Your task to perform on an android device: turn off location history Image 0: 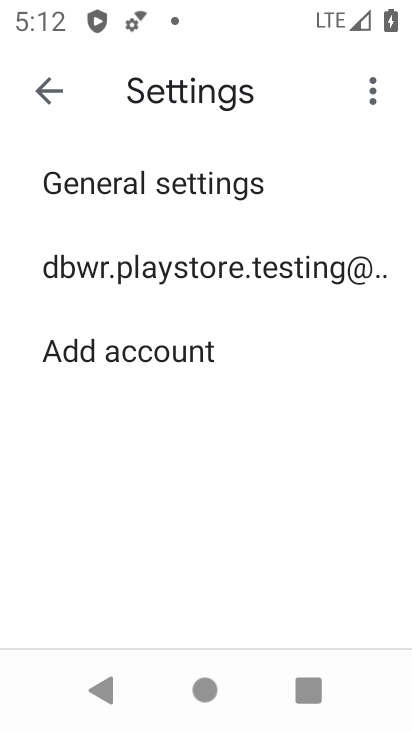
Step 0: press back button
Your task to perform on an android device: turn off location history Image 1: 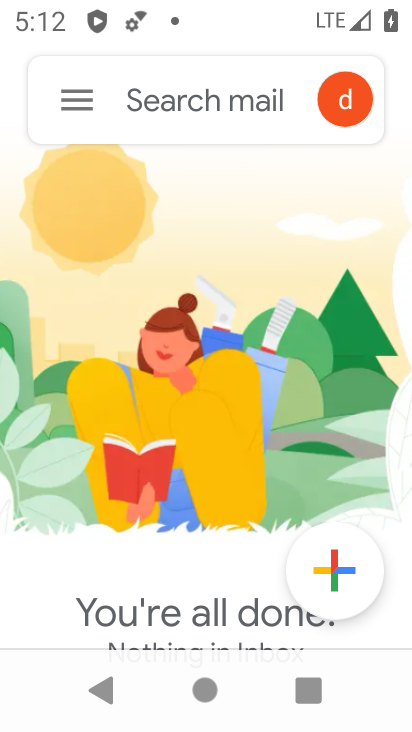
Step 1: press back button
Your task to perform on an android device: turn off location history Image 2: 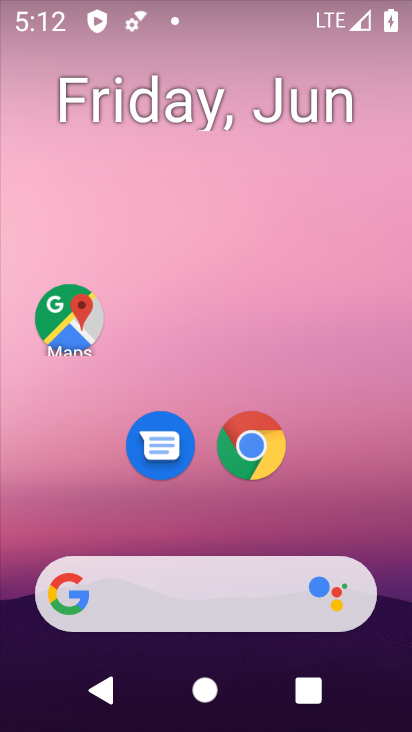
Step 2: drag from (255, 106) to (226, 20)
Your task to perform on an android device: turn off location history Image 3: 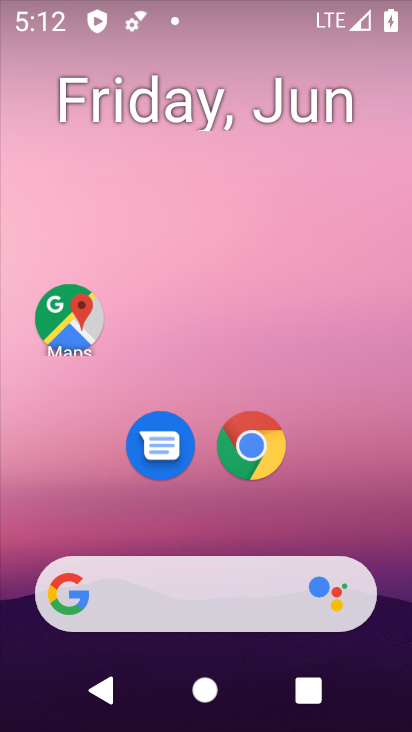
Step 3: drag from (401, 617) to (281, 52)
Your task to perform on an android device: turn off location history Image 4: 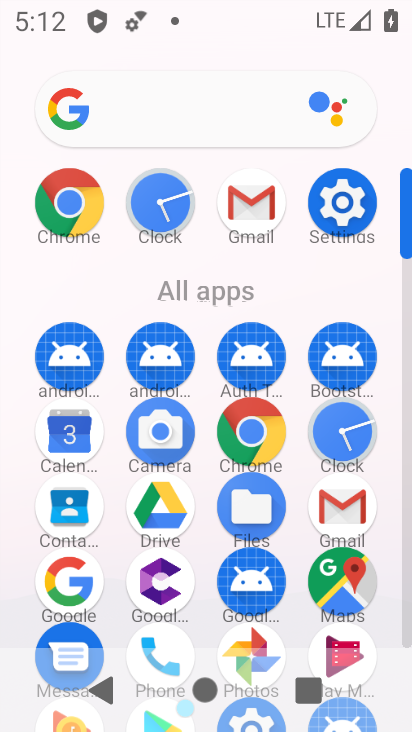
Step 4: drag from (10, 400) to (8, 223)
Your task to perform on an android device: turn off location history Image 5: 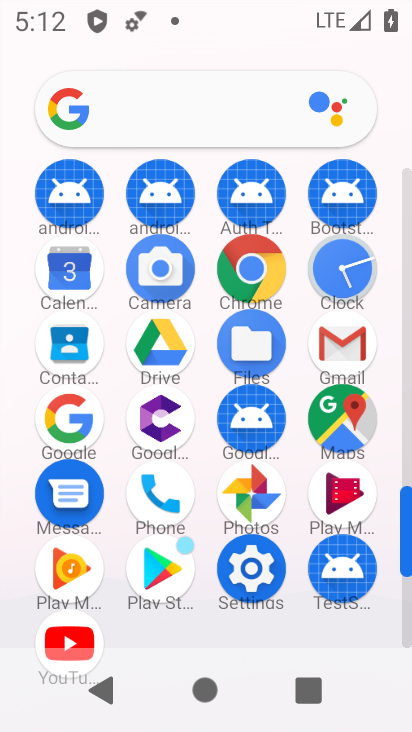
Step 5: click (251, 565)
Your task to perform on an android device: turn off location history Image 6: 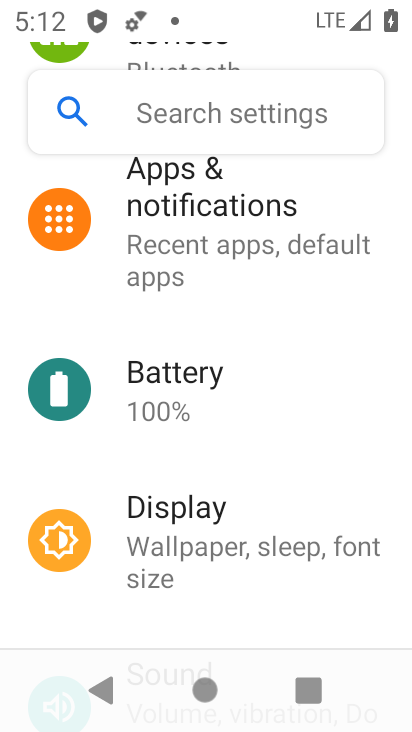
Step 6: drag from (258, 543) to (275, 164)
Your task to perform on an android device: turn off location history Image 7: 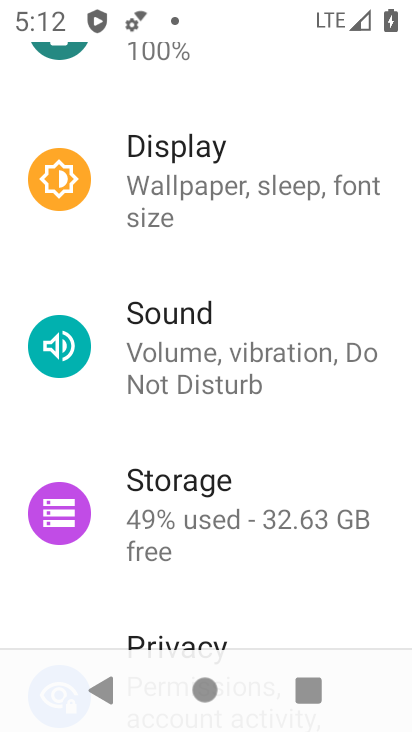
Step 7: drag from (269, 403) to (256, 118)
Your task to perform on an android device: turn off location history Image 8: 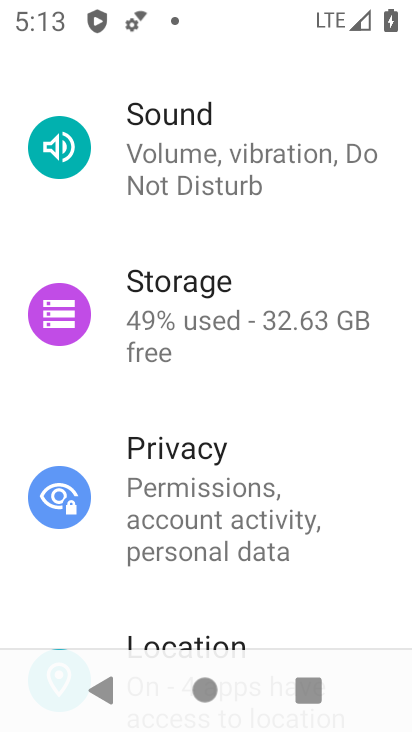
Step 8: drag from (248, 568) to (267, 156)
Your task to perform on an android device: turn off location history Image 9: 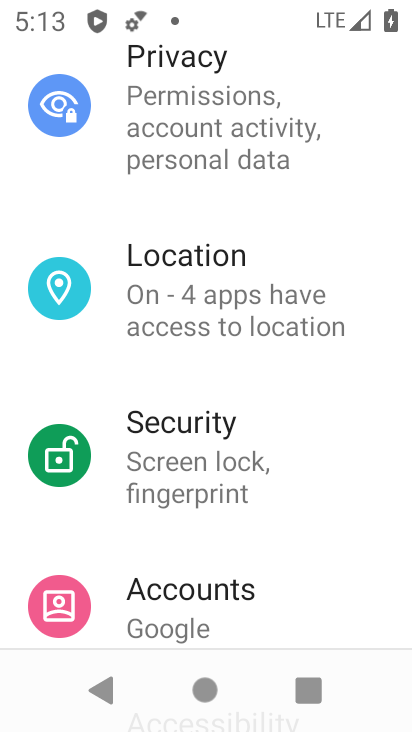
Step 9: drag from (262, 568) to (270, 495)
Your task to perform on an android device: turn off location history Image 10: 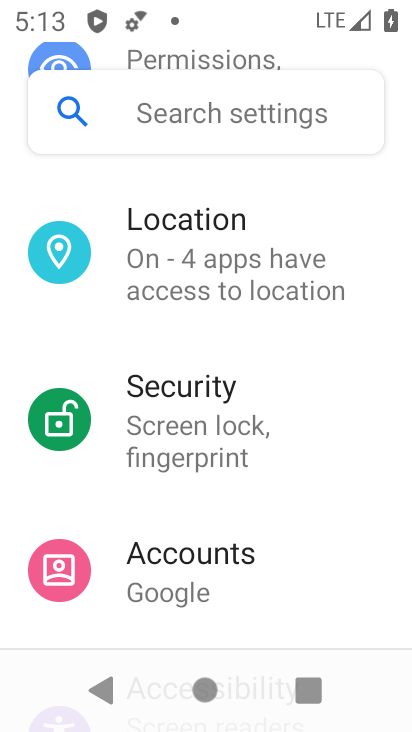
Step 10: click (243, 238)
Your task to perform on an android device: turn off location history Image 11: 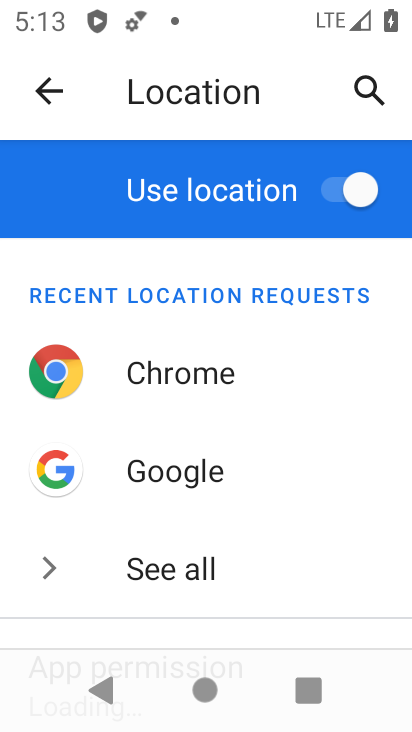
Step 11: drag from (273, 514) to (261, 161)
Your task to perform on an android device: turn off location history Image 12: 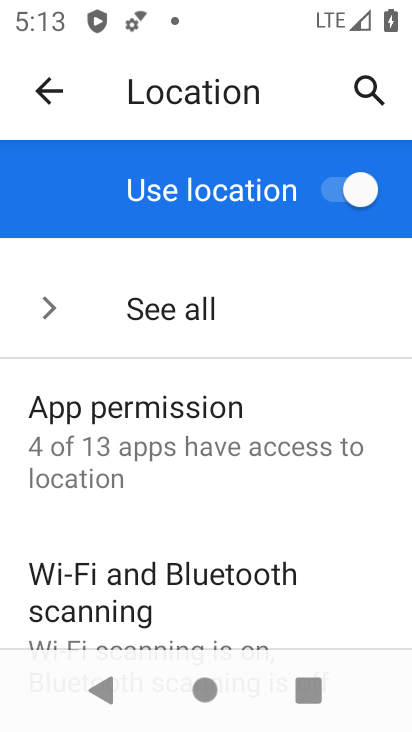
Step 12: drag from (252, 578) to (250, 182)
Your task to perform on an android device: turn off location history Image 13: 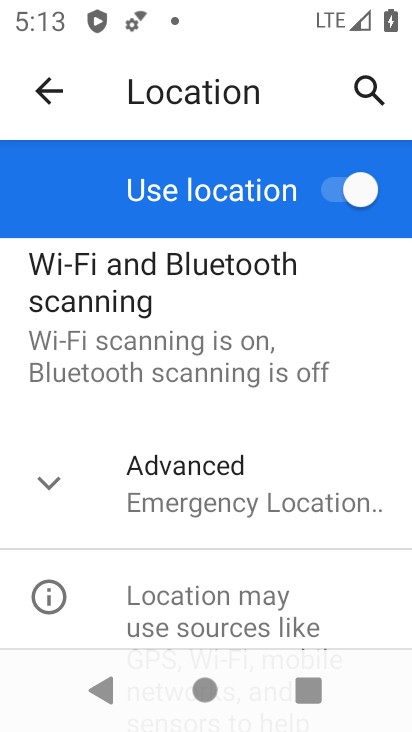
Step 13: drag from (250, 568) to (250, 253)
Your task to perform on an android device: turn off location history Image 14: 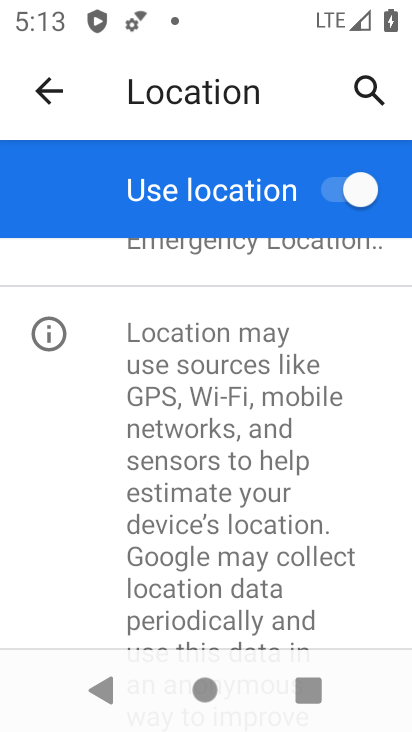
Step 14: click (31, 349)
Your task to perform on an android device: turn off location history Image 15: 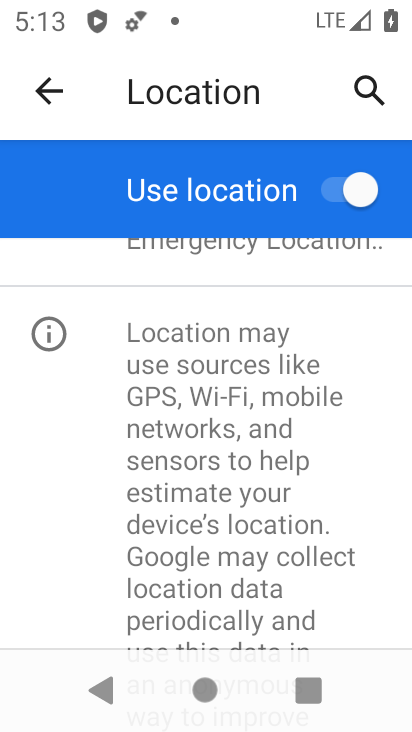
Step 15: drag from (300, 497) to (301, 604)
Your task to perform on an android device: turn off location history Image 16: 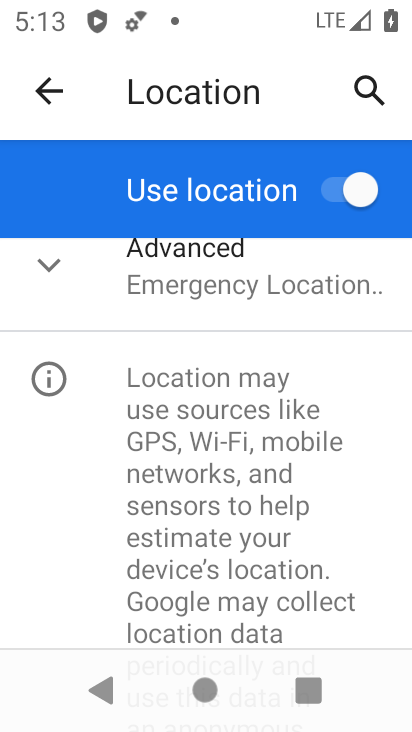
Step 16: drag from (257, 341) to (276, 626)
Your task to perform on an android device: turn off location history Image 17: 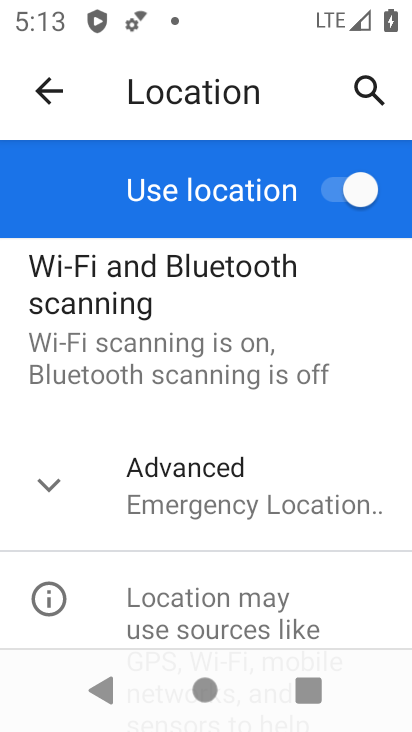
Step 17: click (83, 474)
Your task to perform on an android device: turn off location history Image 18: 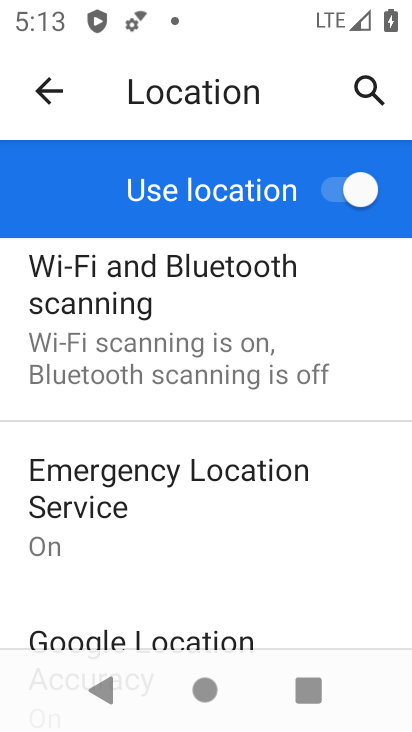
Step 18: drag from (223, 522) to (208, 263)
Your task to perform on an android device: turn off location history Image 19: 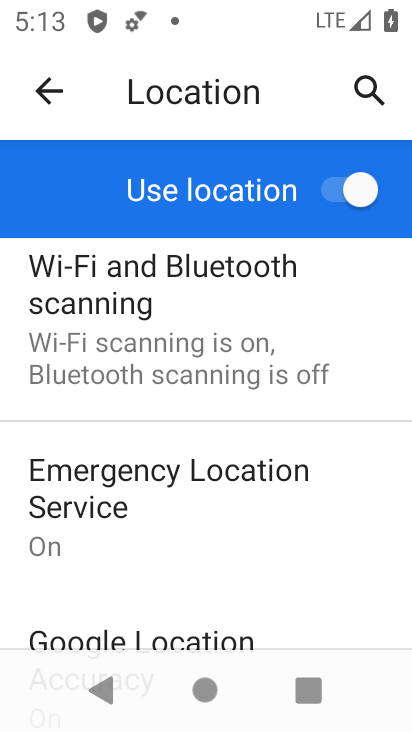
Step 19: drag from (293, 604) to (290, 276)
Your task to perform on an android device: turn off location history Image 20: 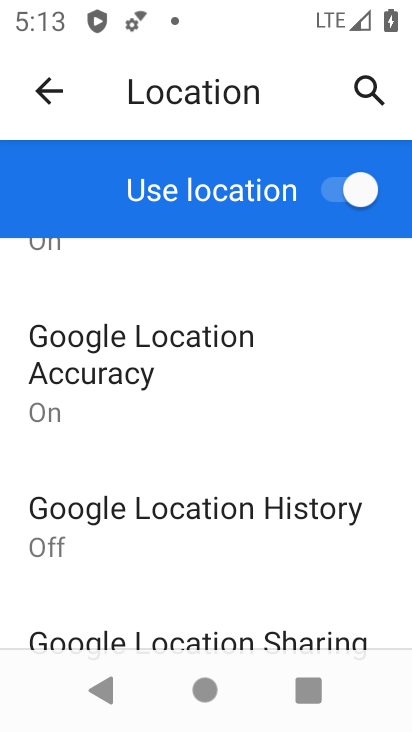
Step 20: drag from (270, 531) to (270, 340)
Your task to perform on an android device: turn off location history Image 21: 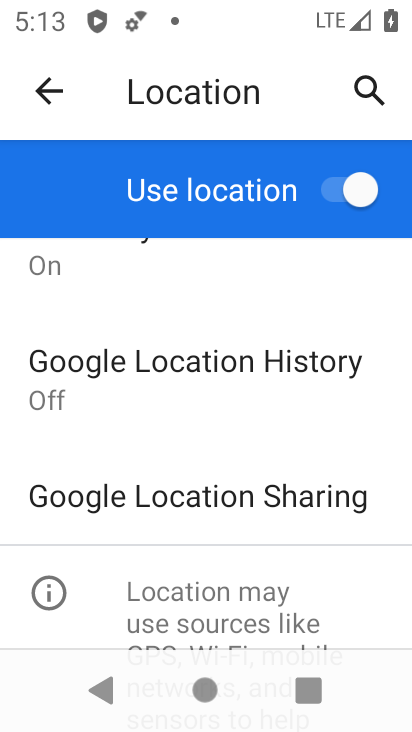
Step 21: click (243, 363)
Your task to perform on an android device: turn off location history Image 22: 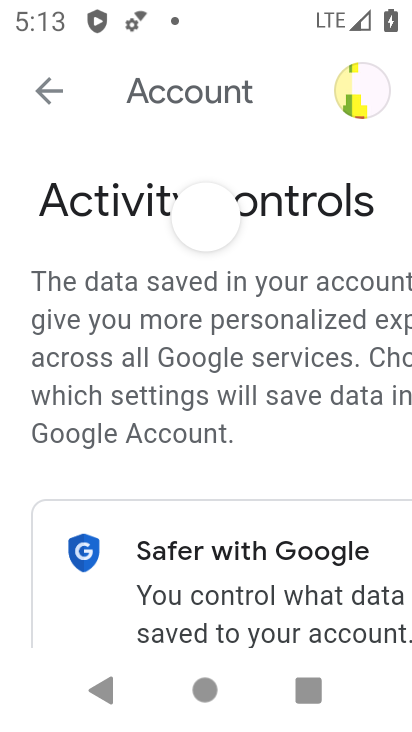
Step 22: drag from (202, 559) to (143, 189)
Your task to perform on an android device: turn off location history Image 23: 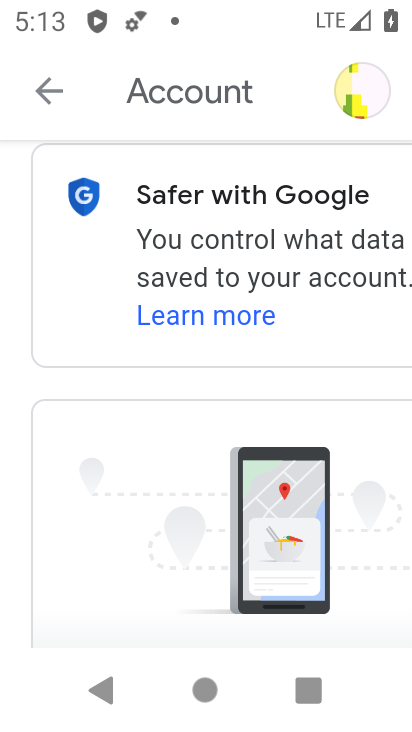
Step 23: drag from (155, 590) to (106, 168)
Your task to perform on an android device: turn off location history Image 24: 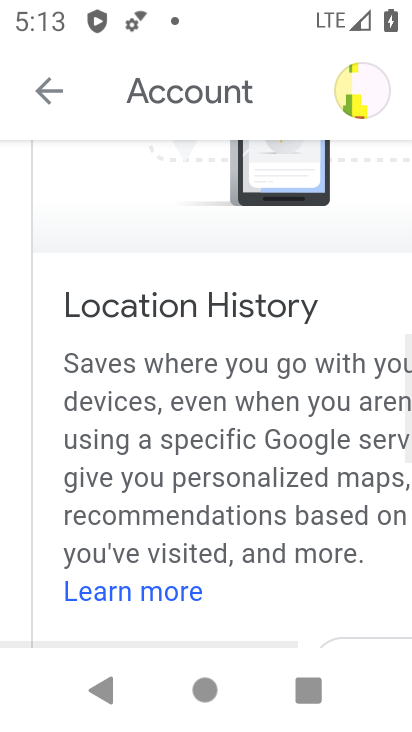
Step 24: drag from (108, 611) to (73, 186)
Your task to perform on an android device: turn off location history Image 25: 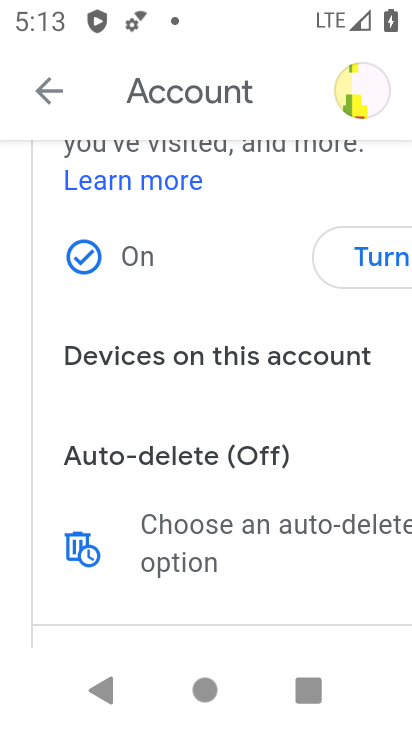
Step 25: click (366, 248)
Your task to perform on an android device: turn off location history Image 26: 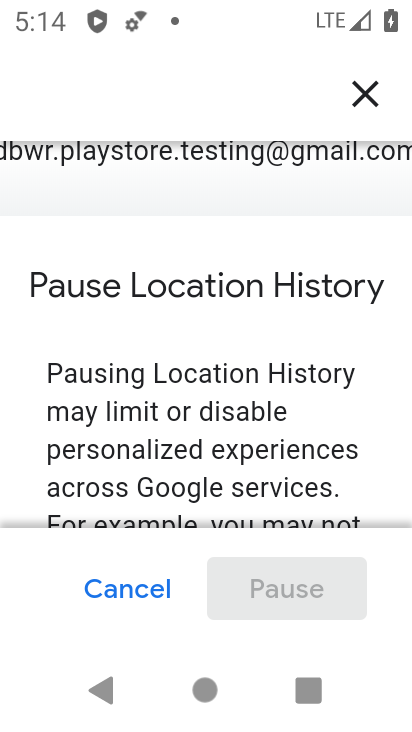
Step 26: drag from (274, 457) to (237, 162)
Your task to perform on an android device: turn off location history Image 27: 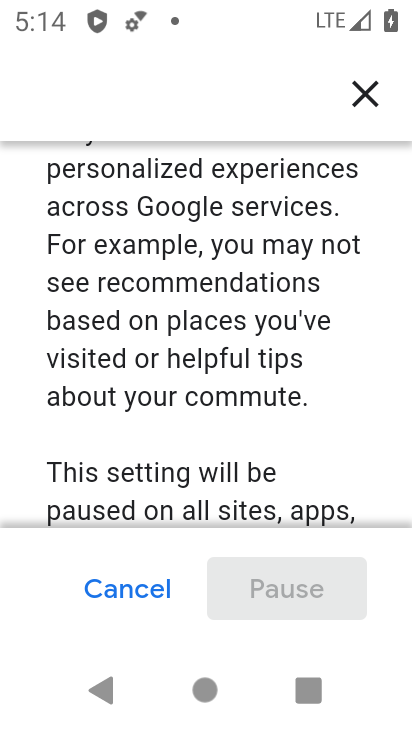
Step 27: drag from (207, 479) to (194, 131)
Your task to perform on an android device: turn off location history Image 28: 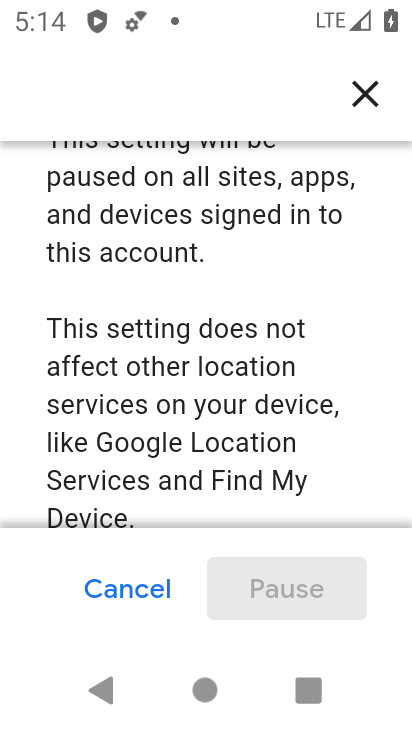
Step 28: drag from (199, 501) to (153, 162)
Your task to perform on an android device: turn off location history Image 29: 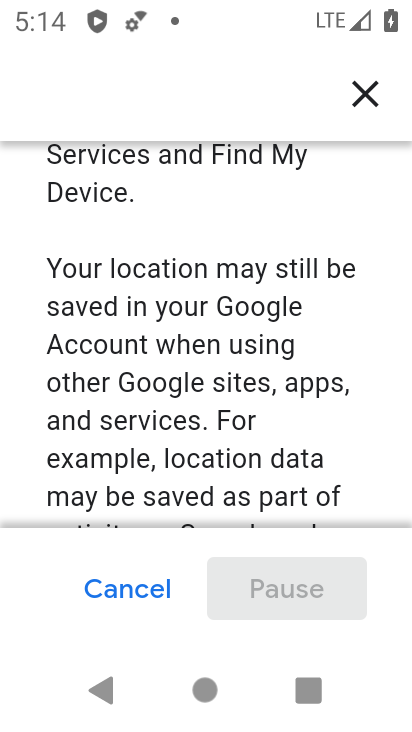
Step 29: click (176, 159)
Your task to perform on an android device: turn off location history Image 30: 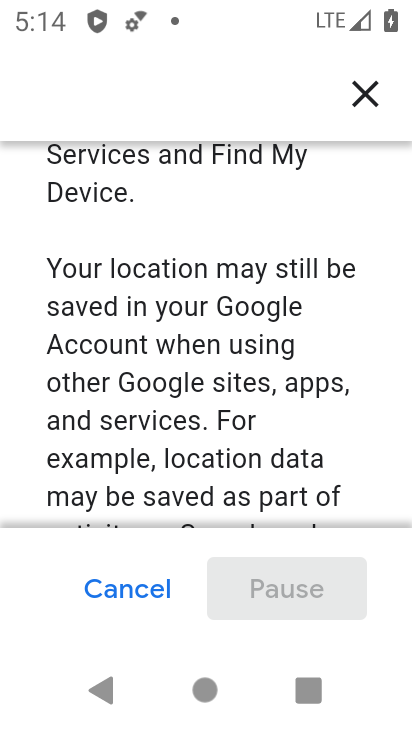
Step 30: drag from (153, 467) to (151, 166)
Your task to perform on an android device: turn off location history Image 31: 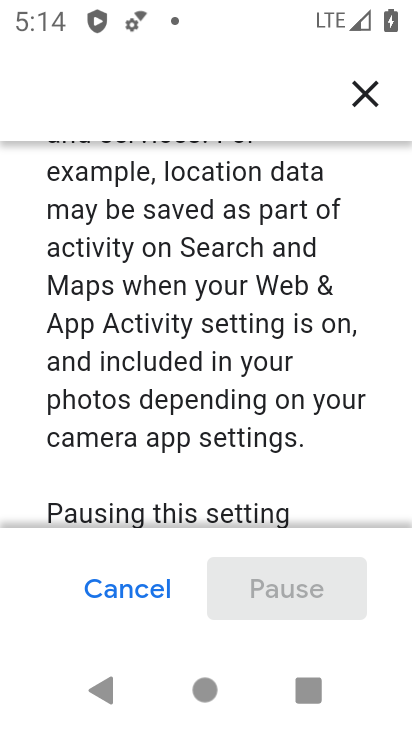
Step 31: drag from (157, 452) to (158, 190)
Your task to perform on an android device: turn off location history Image 32: 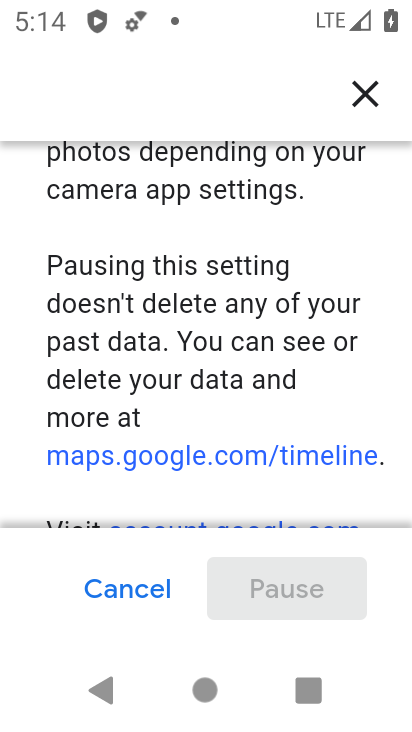
Step 32: drag from (194, 476) to (203, 181)
Your task to perform on an android device: turn off location history Image 33: 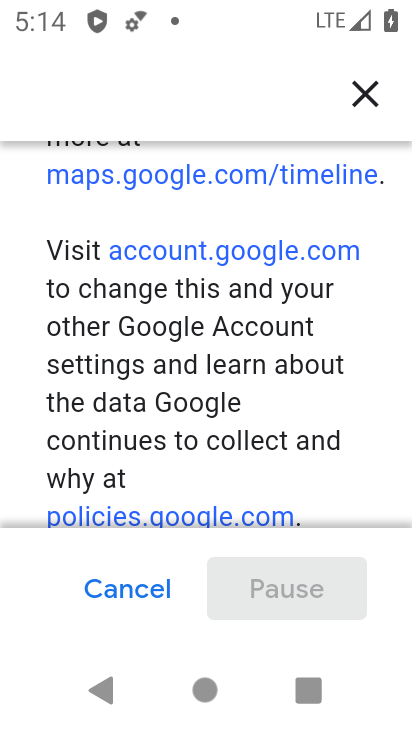
Step 33: drag from (276, 442) to (284, 152)
Your task to perform on an android device: turn off location history Image 34: 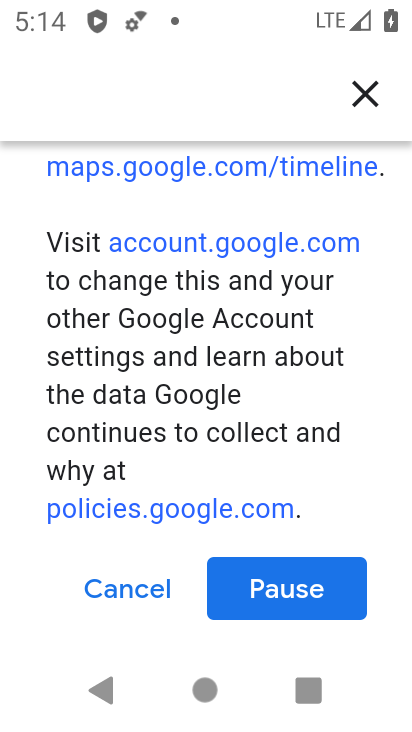
Step 34: drag from (332, 454) to (297, 163)
Your task to perform on an android device: turn off location history Image 35: 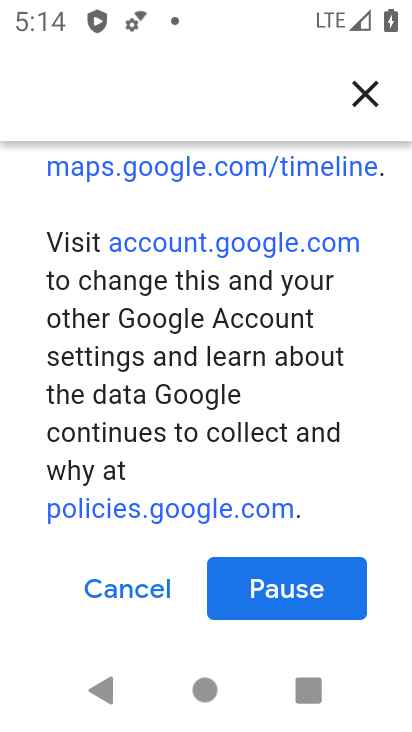
Step 35: click (274, 581)
Your task to perform on an android device: turn off location history Image 36: 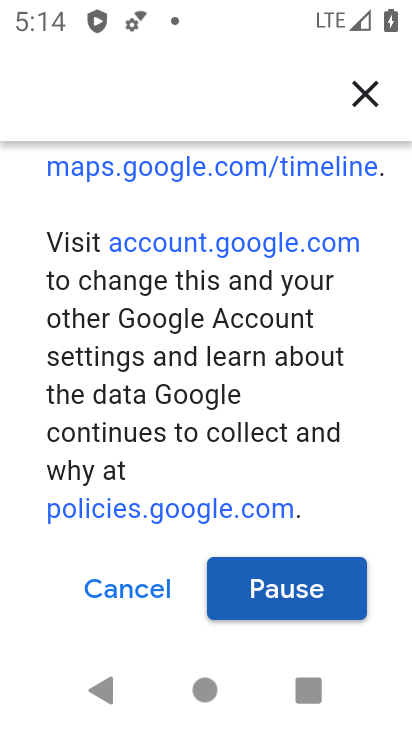
Step 36: click (274, 581)
Your task to perform on an android device: turn off location history Image 37: 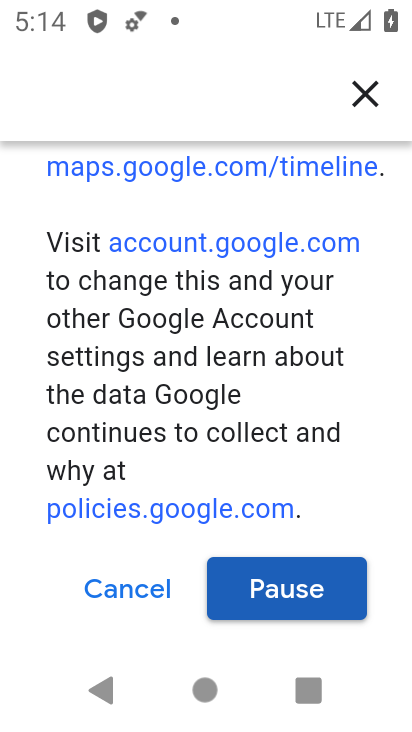
Step 37: click (274, 581)
Your task to perform on an android device: turn off location history Image 38: 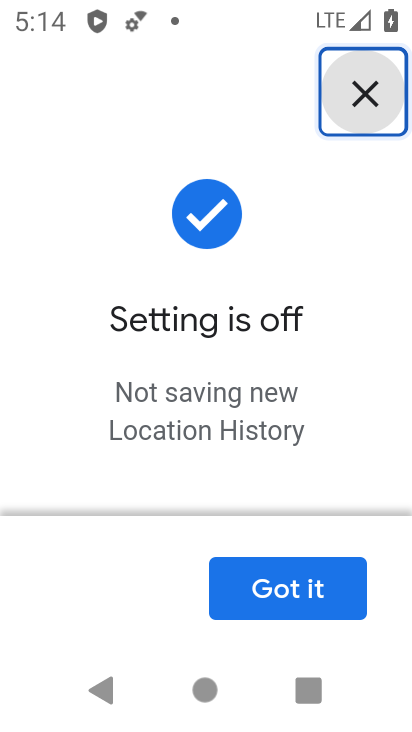
Step 38: task complete